Your task to perform on an android device: Open the web browser Image 0: 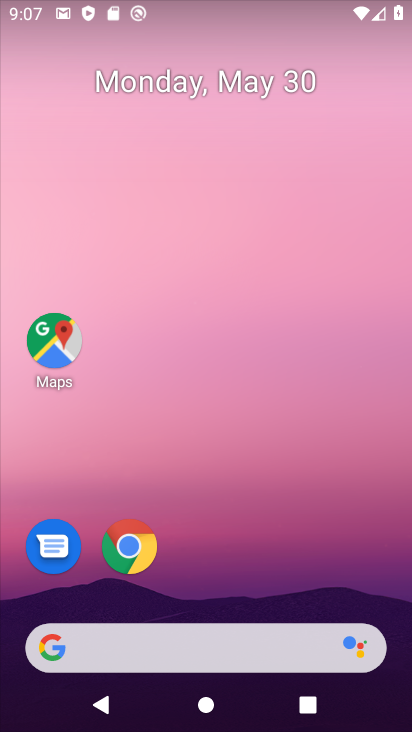
Step 0: drag from (335, 561) to (287, 72)
Your task to perform on an android device: Open the web browser Image 1: 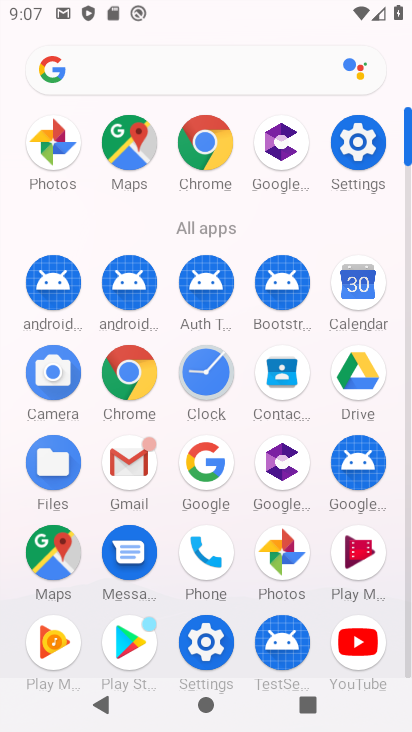
Step 1: click (140, 367)
Your task to perform on an android device: Open the web browser Image 2: 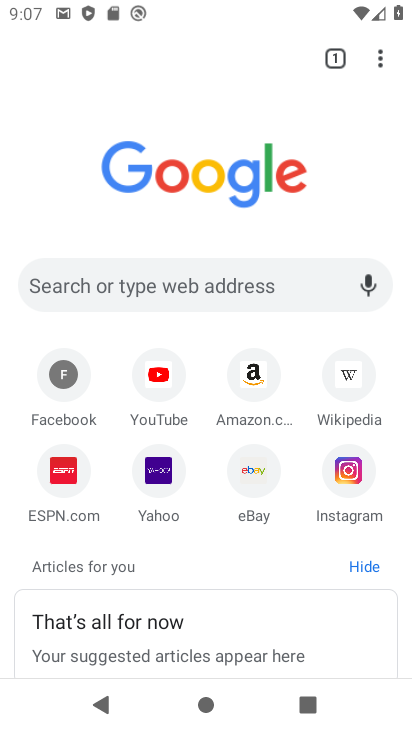
Step 2: task complete